Your task to perform on an android device: change keyboard looks Image 0: 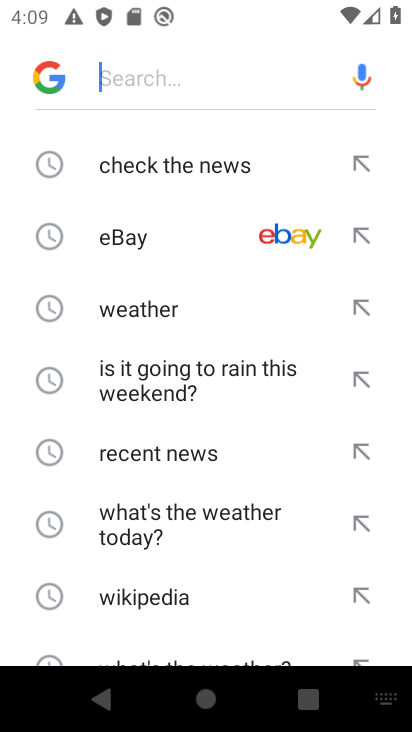
Step 0: task complete